Your task to perform on an android device: Open Youtube and go to "Your channel" Image 0: 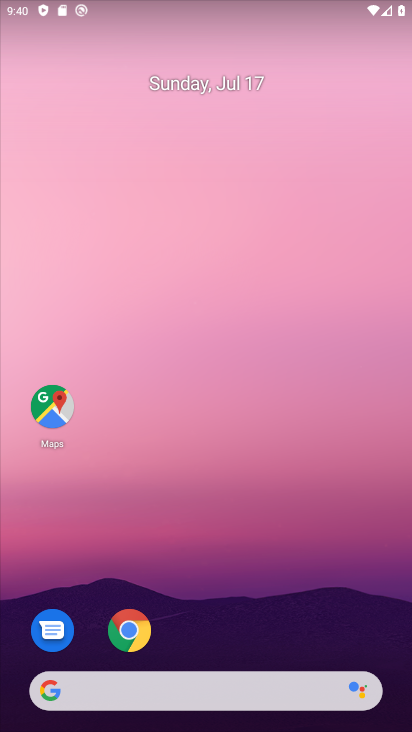
Step 0: drag from (219, 628) to (285, 48)
Your task to perform on an android device: Open Youtube and go to "Your channel" Image 1: 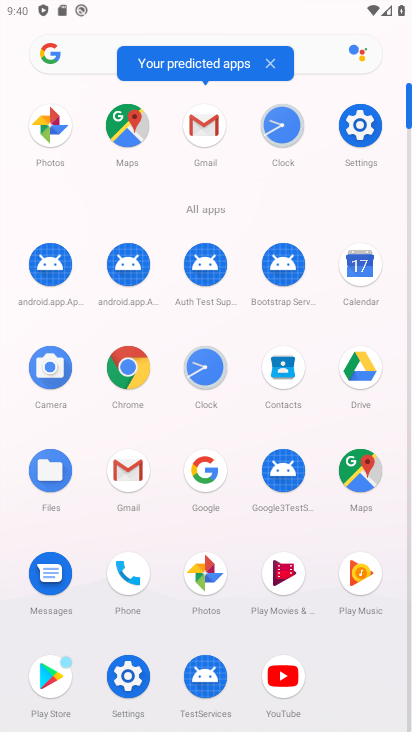
Step 1: click (292, 668)
Your task to perform on an android device: Open Youtube and go to "Your channel" Image 2: 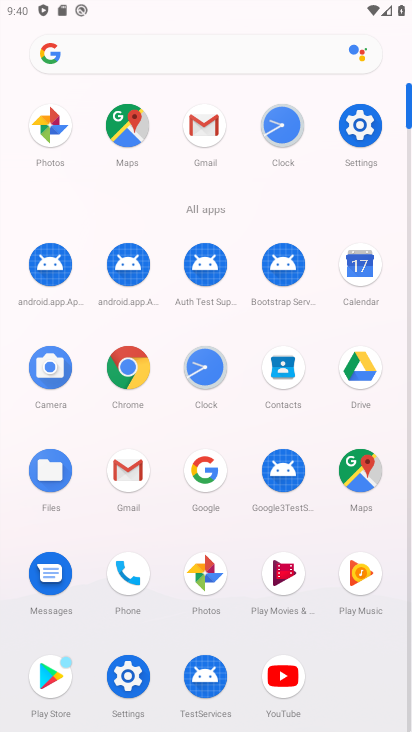
Step 2: click (292, 677)
Your task to perform on an android device: Open Youtube and go to "Your channel" Image 3: 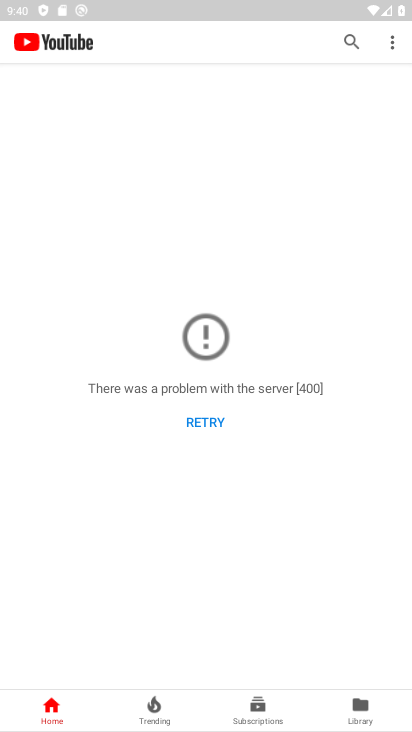
Step 3: click (205, 414)
Your task to perform on an android device: Open Youtube and go to "Your channel" Image 4: 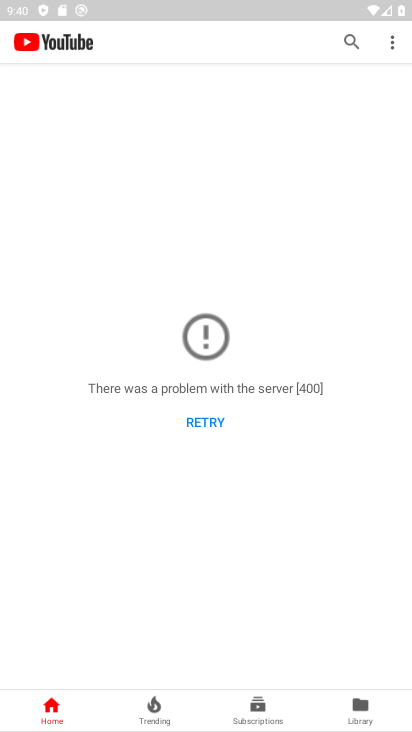
Step 4: click (205, 421)
Your task to perform on an android device: Open Youtube and go to "Your channel" Image 5: 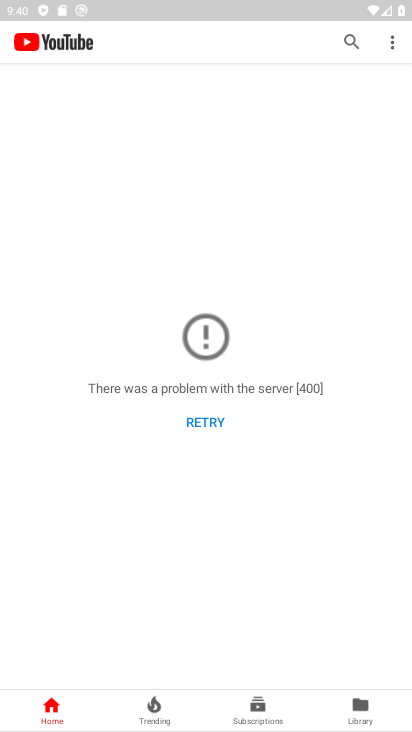
Step 5: click (215, 425)
Your task to perform on an android device: Open Youtube and go to "Your channel" Image 6: 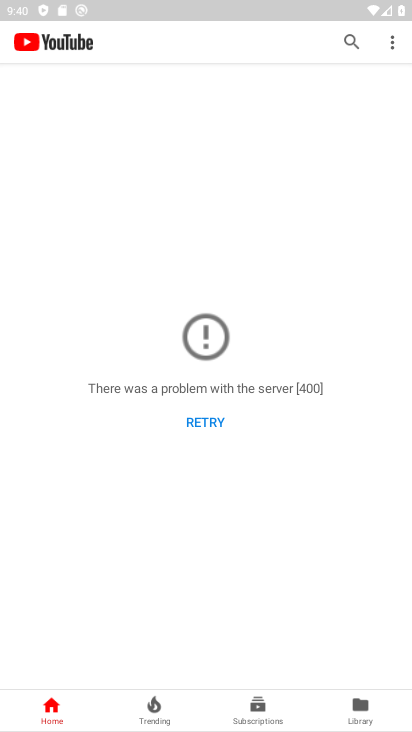
Step 6: click (215, 425)
Your task to perform on an android device: Open Youtube and go to "Your channel" Image 7: 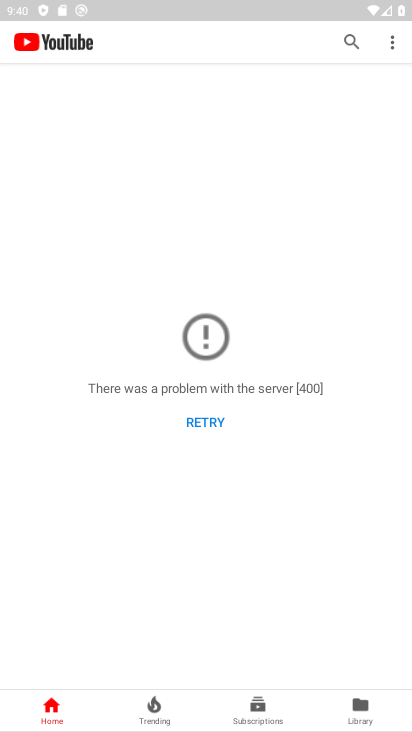
Step 7: click (214, 424)
Your task to perform on an android device: Open Youtube and go to "Your channel" Image 8: 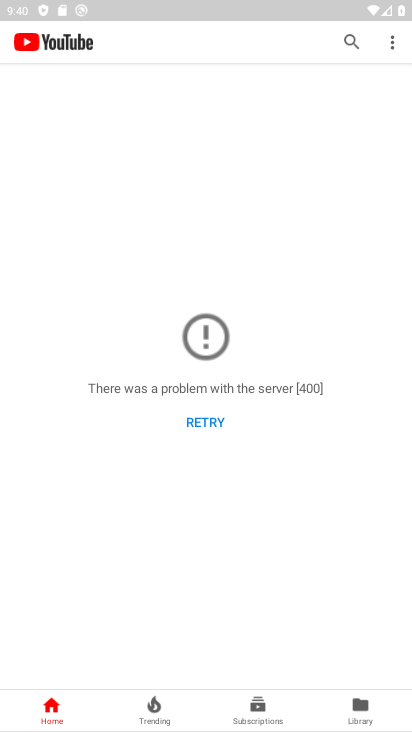
Step 8: task complete